Your task to perform on an android device: Open my contact list Image 0: 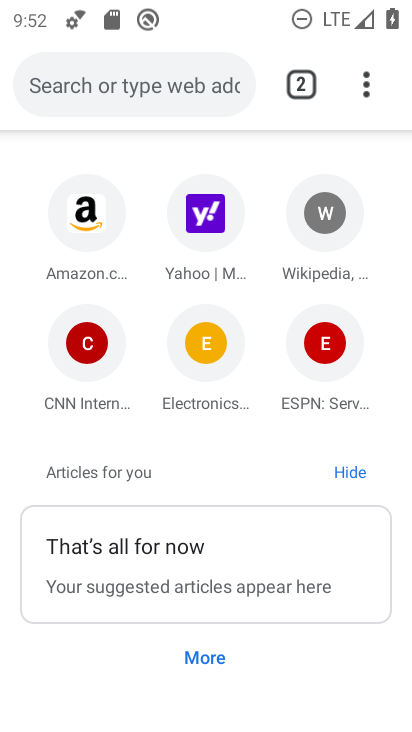
Step 0: press home button
Your task to perform on an android device: Open my contact list Image 1: 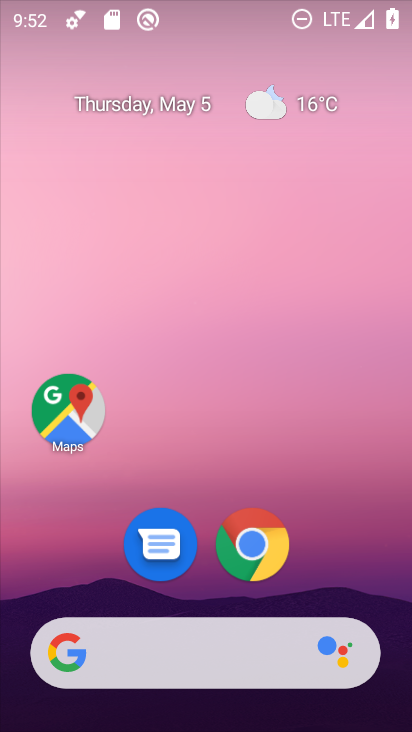
Step 1: drag from (391, 637) to (298, 95)
Your task to perform on an android device: Open my contact list Image 2: 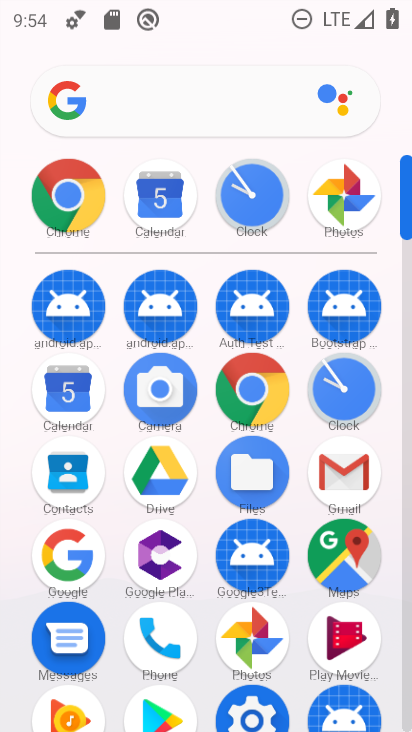
Step 2: click (54, 479)
Your task to perform on an android device: Open my contact list Image 3: 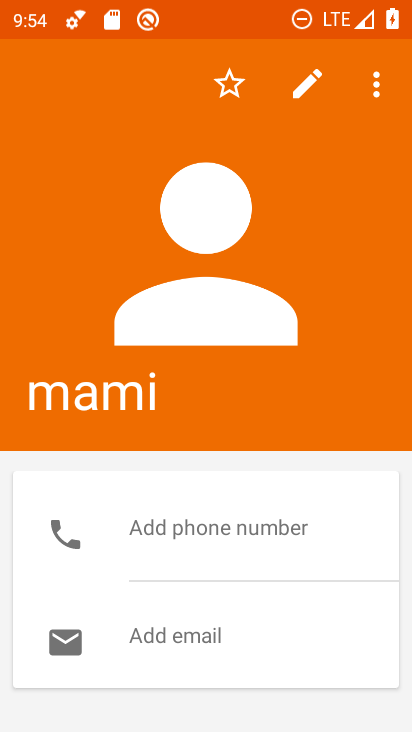
Step 3: press back button
Your task to perform on an android device: Open my contact list Image 4: 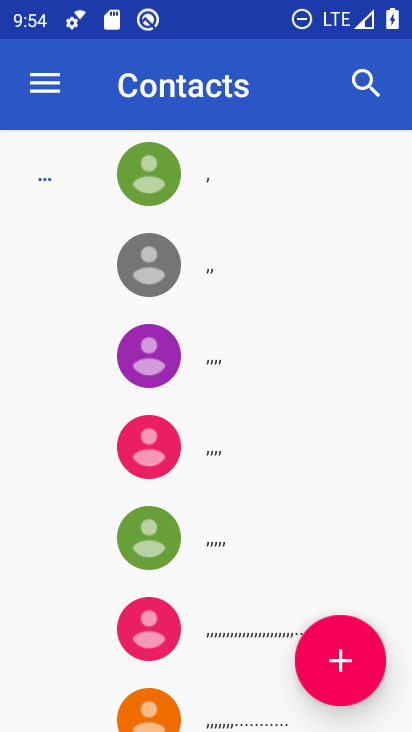
Step 4: drag from (242, 632) to (277, 101)
Your task to perform on an android device: Open my contact list Image 5: 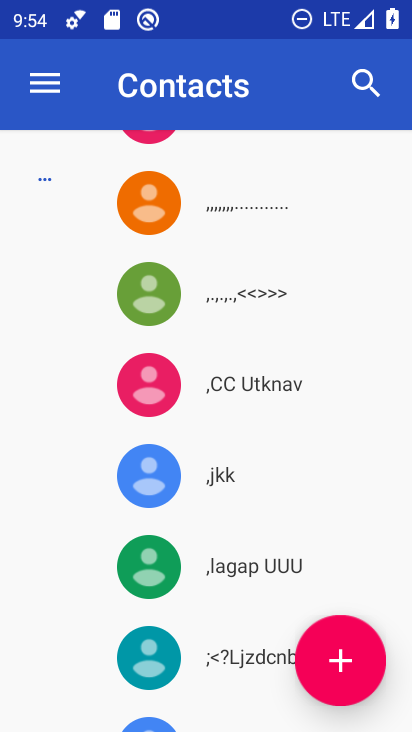
Step 5: click (24, 80)
Your task to perform on an android device: Open my contact list Image 6: 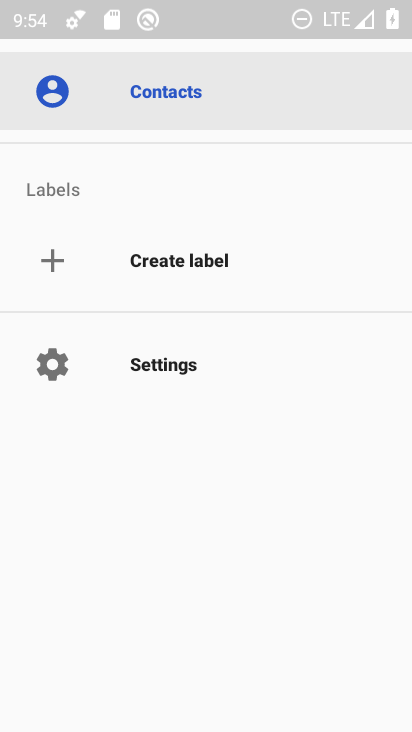
Step 6: task complete